Your task to perform on an android device: View the shopping cart on ebay.com. Image 0: 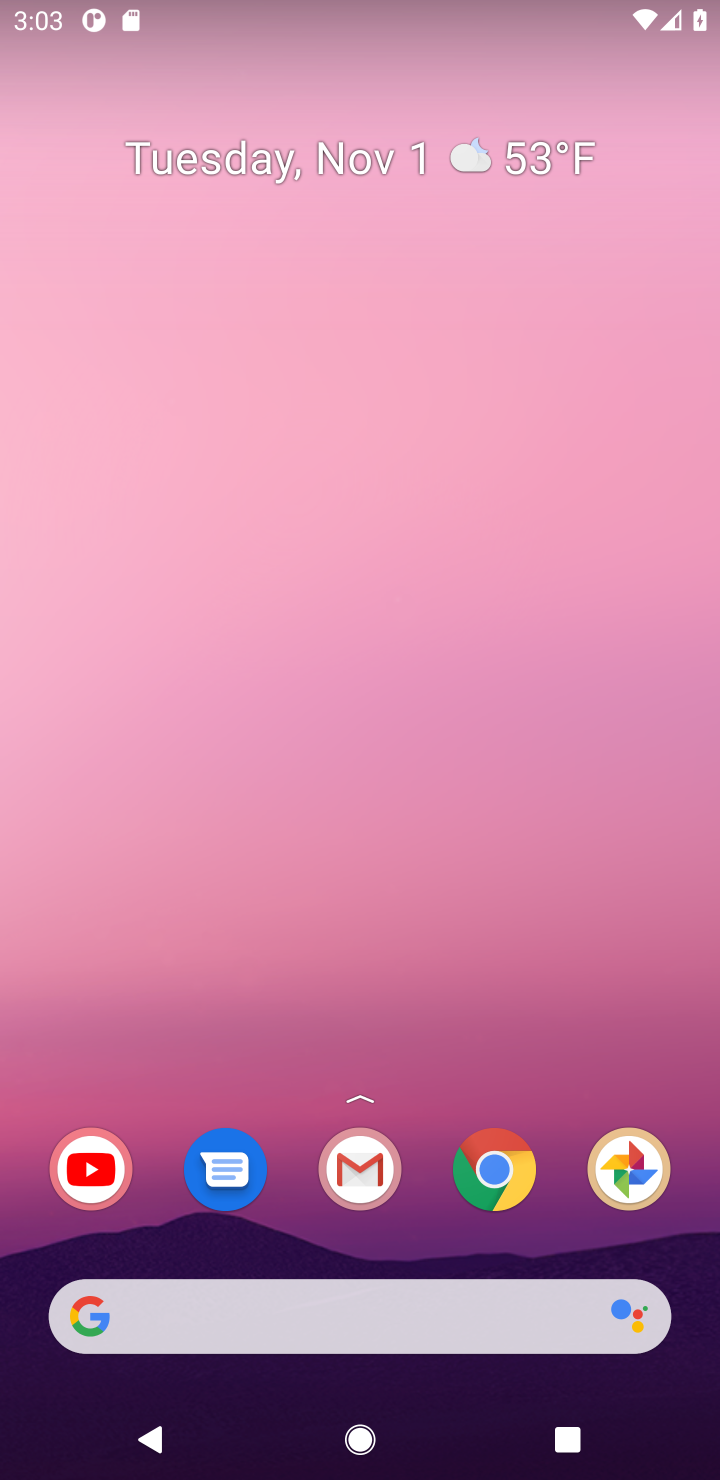
Step 0: drag from (410, 1100) to (410, 123)
Your task to perform on an android device: View the shopping cart on ebay.com. Image 1: 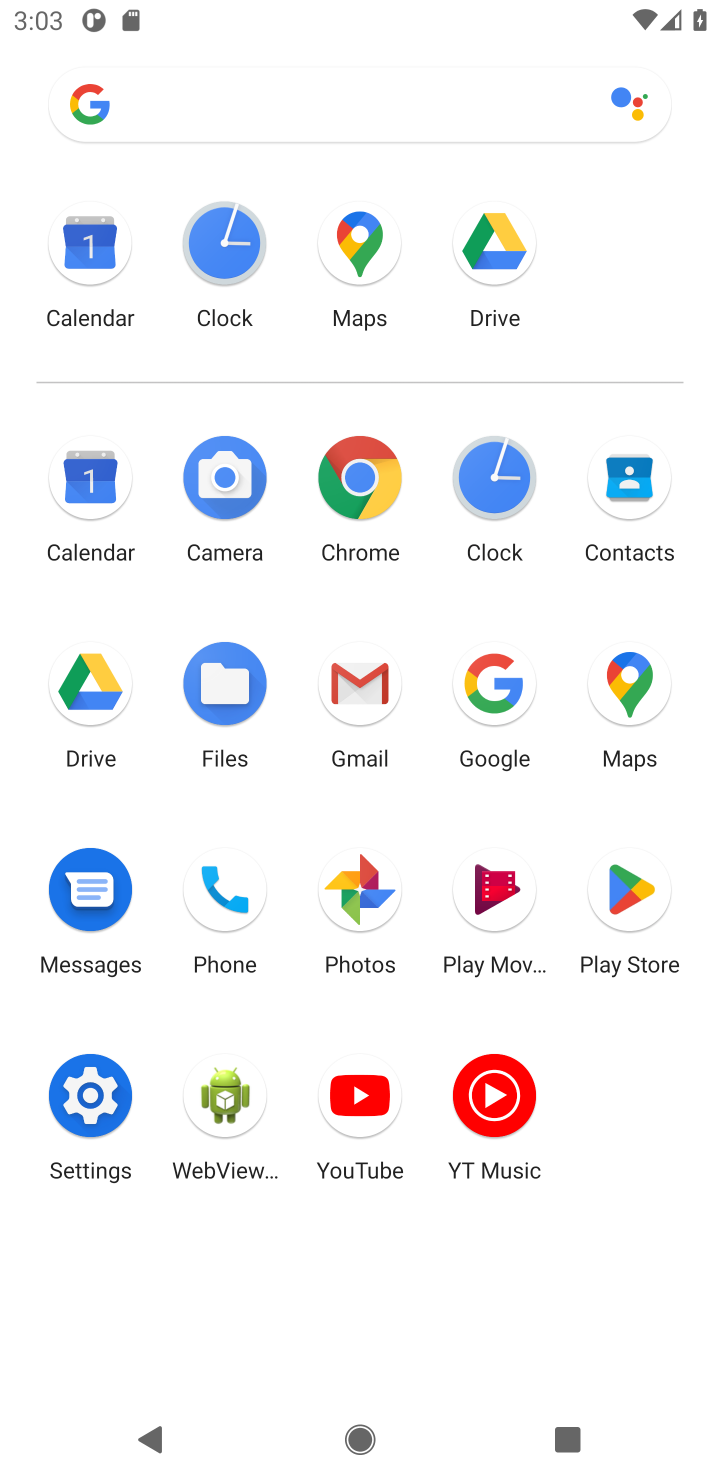
Step 1: click (352, 473)
Your task to perform on an android device: View the shopping cart on ebay.com. Image 2: 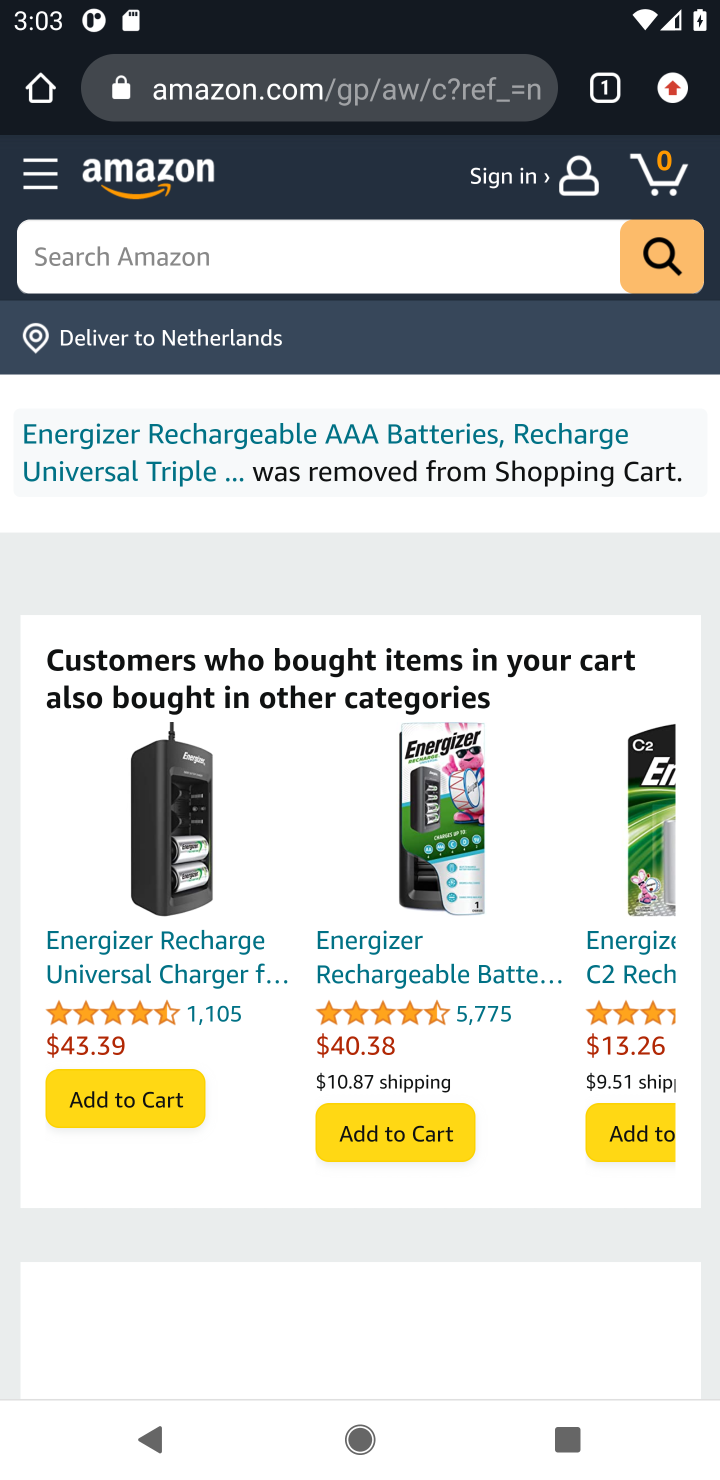
Step 2: click (290, 85)
Your task to perform on an android device: View the shopping cart on ebay.com. Image 3: 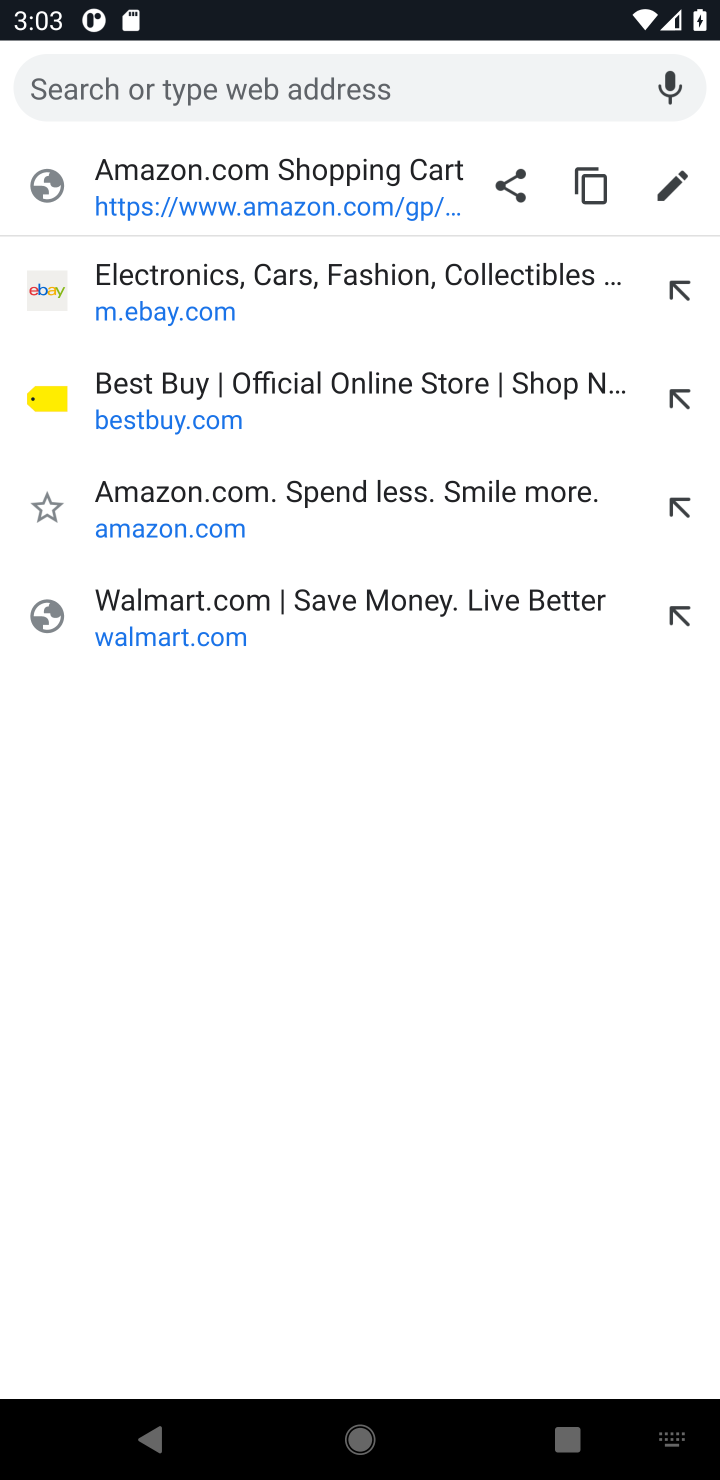
Step 3: type "ebay"
Your task to perform on an android device: View the shopping cart on ebay.com. Image 4: 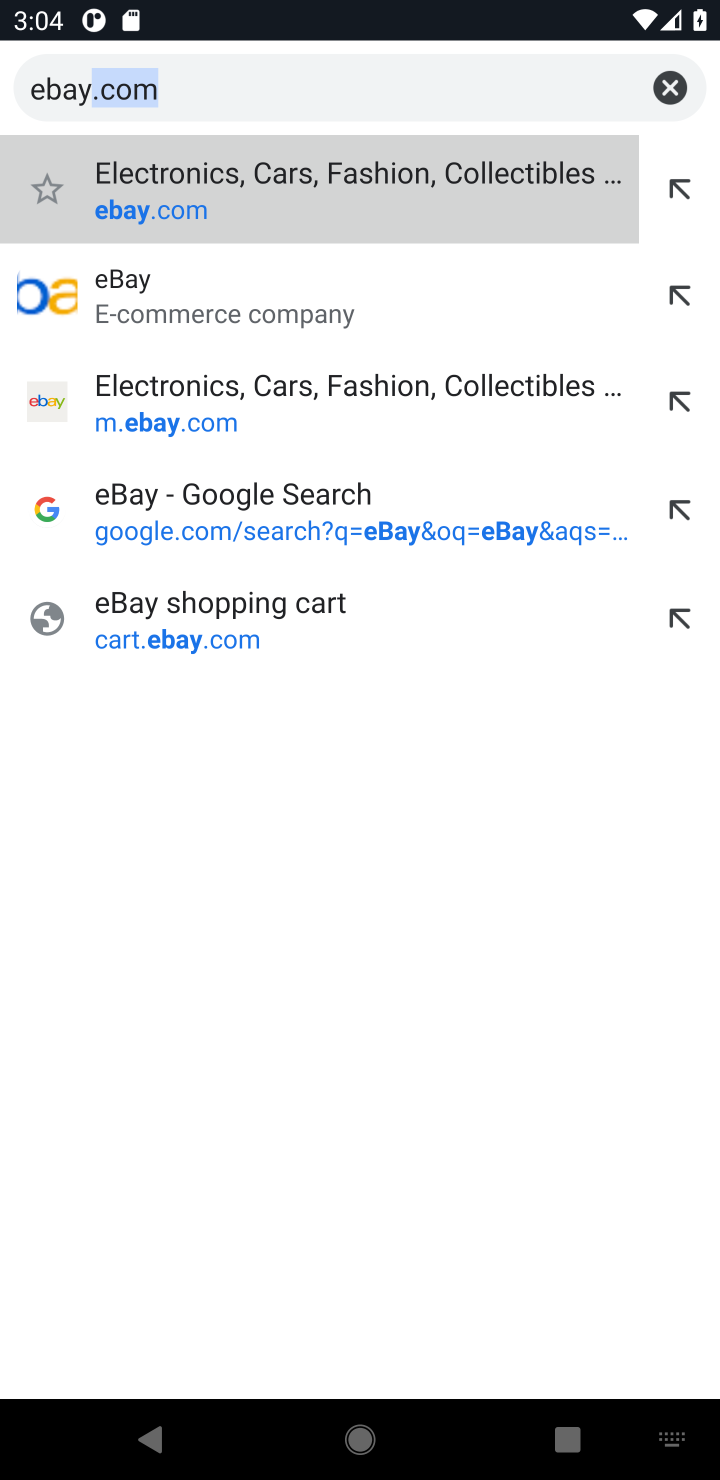
Step 4: click (253, 214)
Your task to perform on an android device: View the shopping cart on ebay.com. Image 5: 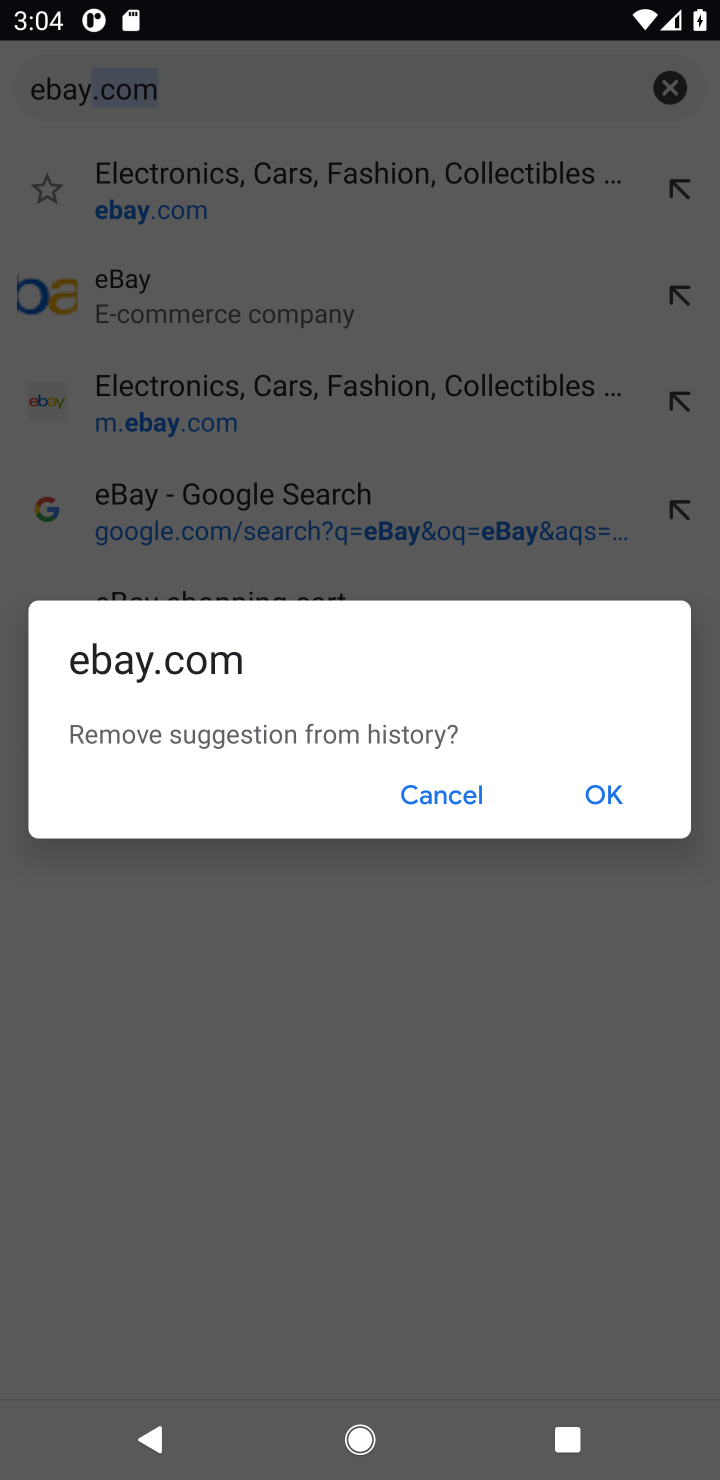
Step 5: click (149, 221)
Your task to perform on an android device: View the shopping cart on ebay.com. Image 6: 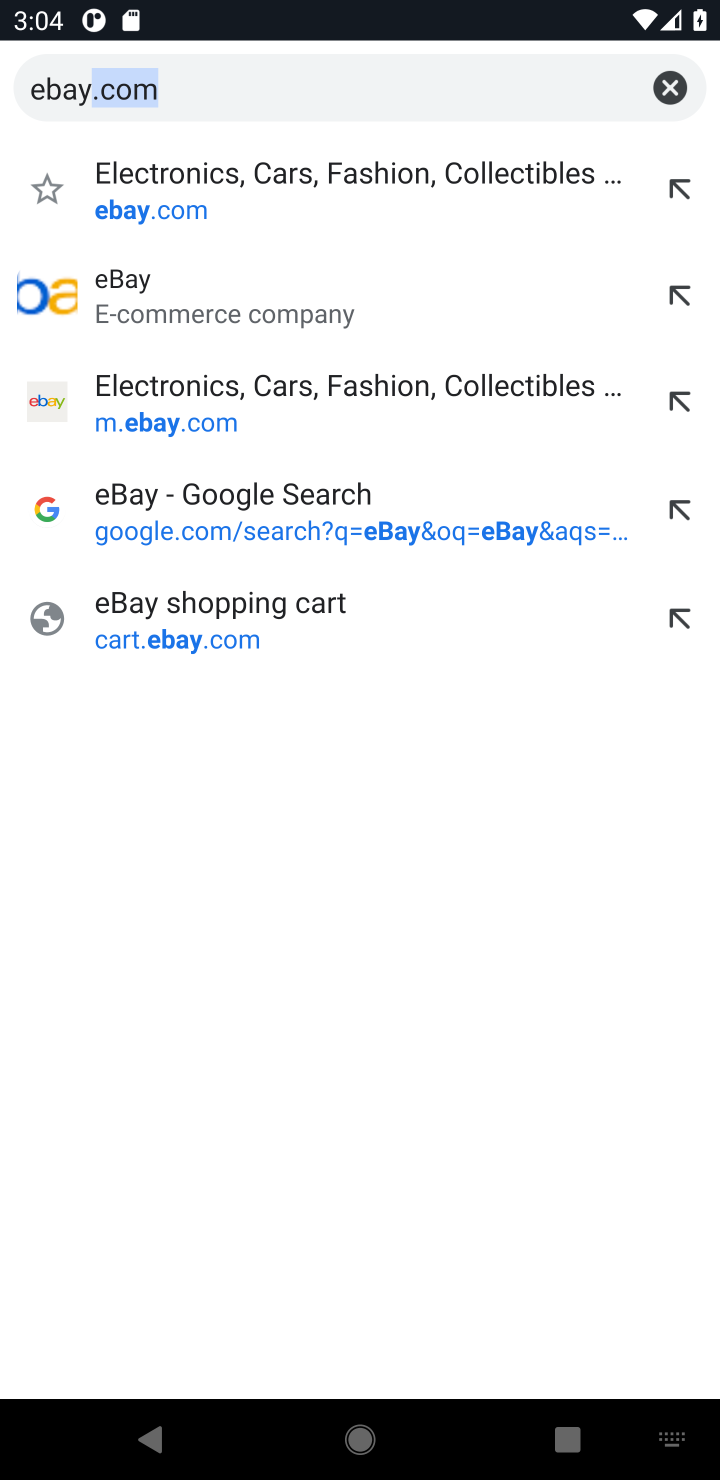
Step 6: click (127, 195)
Your task to perform on an android device: View the shopping cart on ebay.com. Image 7: 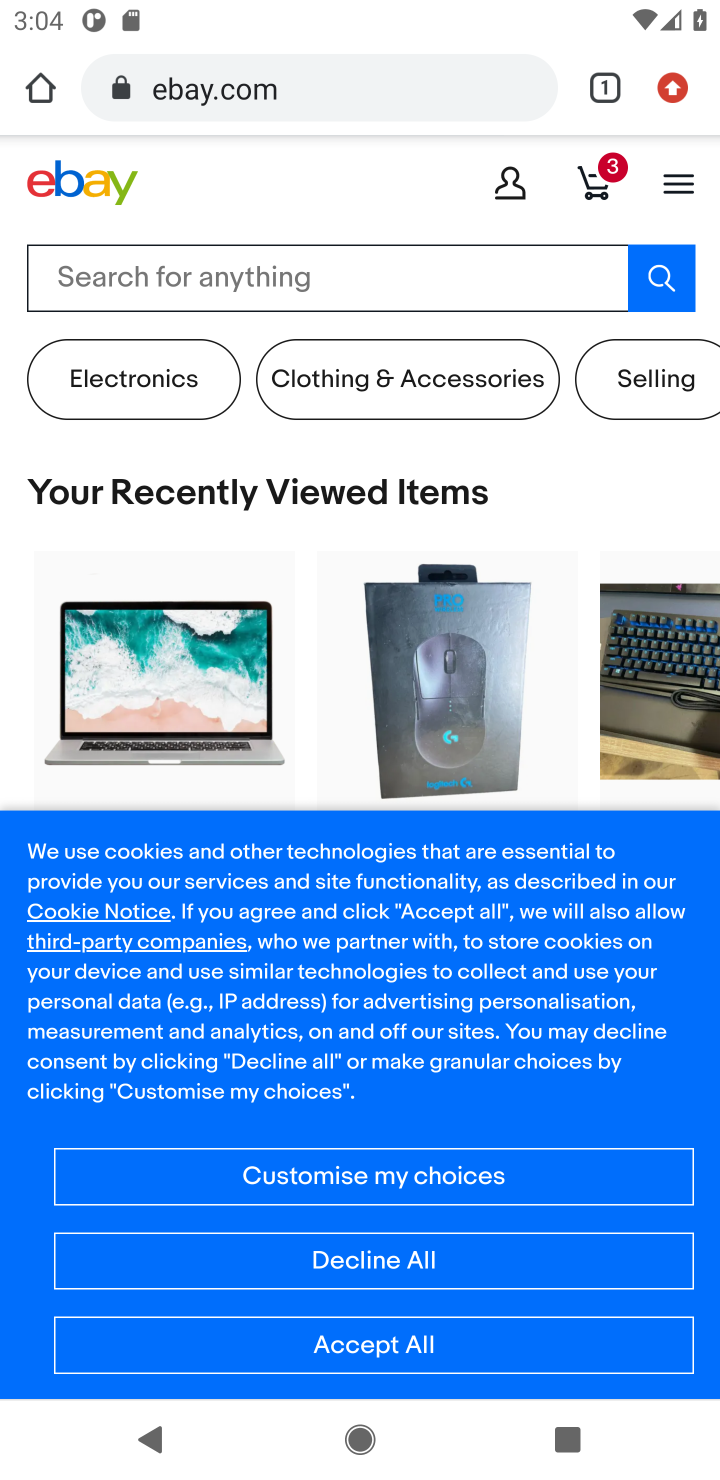
Step 7: click (380, 1353)
Your task to perform on an android device: View the shopping cart on ebay.com. Image 8: 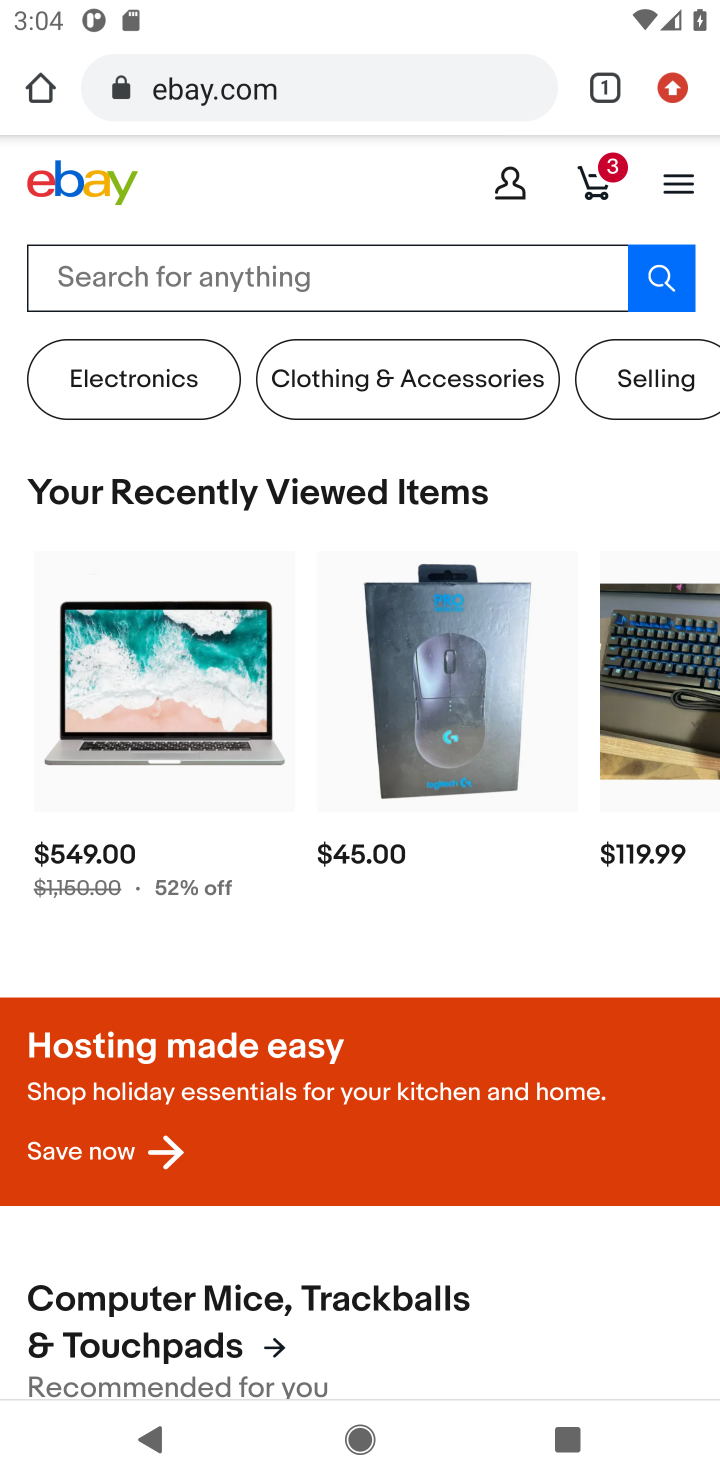
Step 8: click (213, 270)
Your task to perform on an android device: View the shopping cart on ebay.com. Image 9: 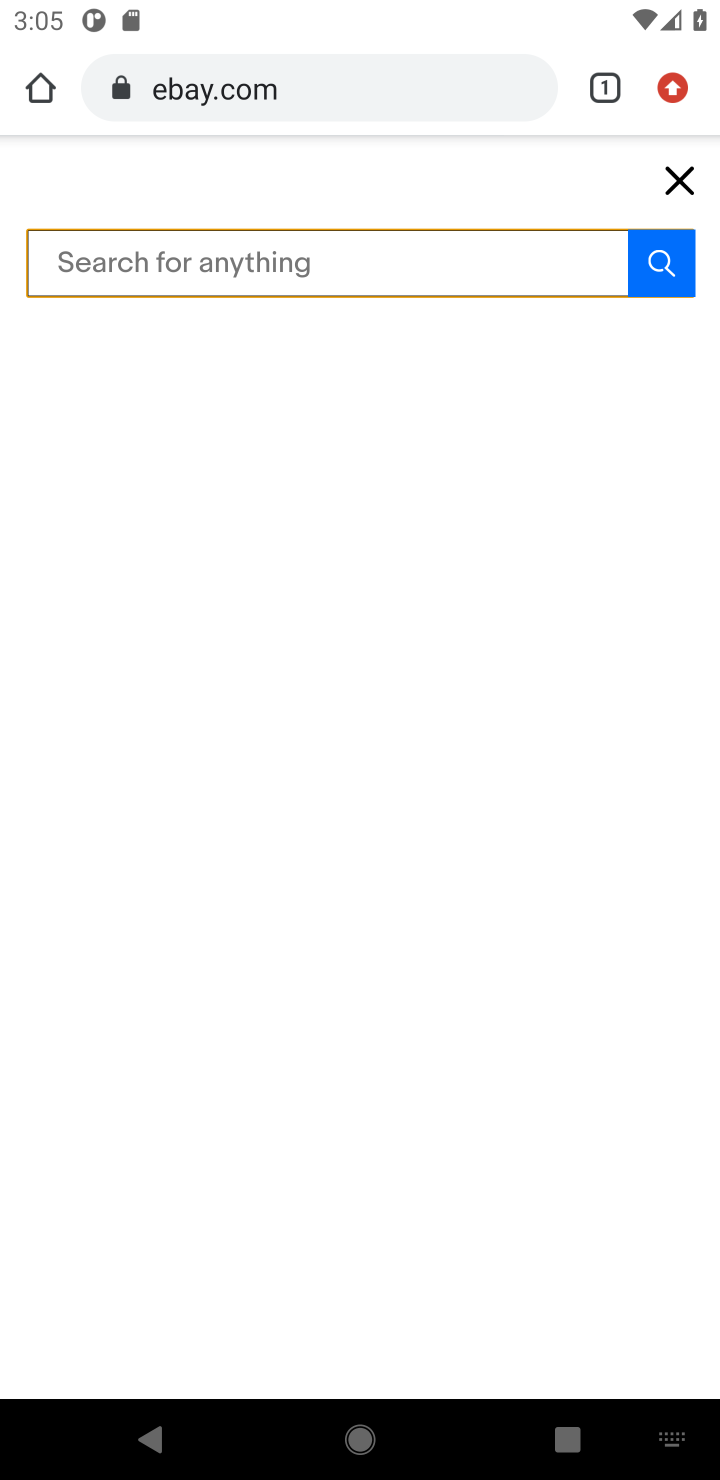
Step 9: click (678, 181)
Your task to perform on an android device: View the shopping cart on ebay.com. Image 10: 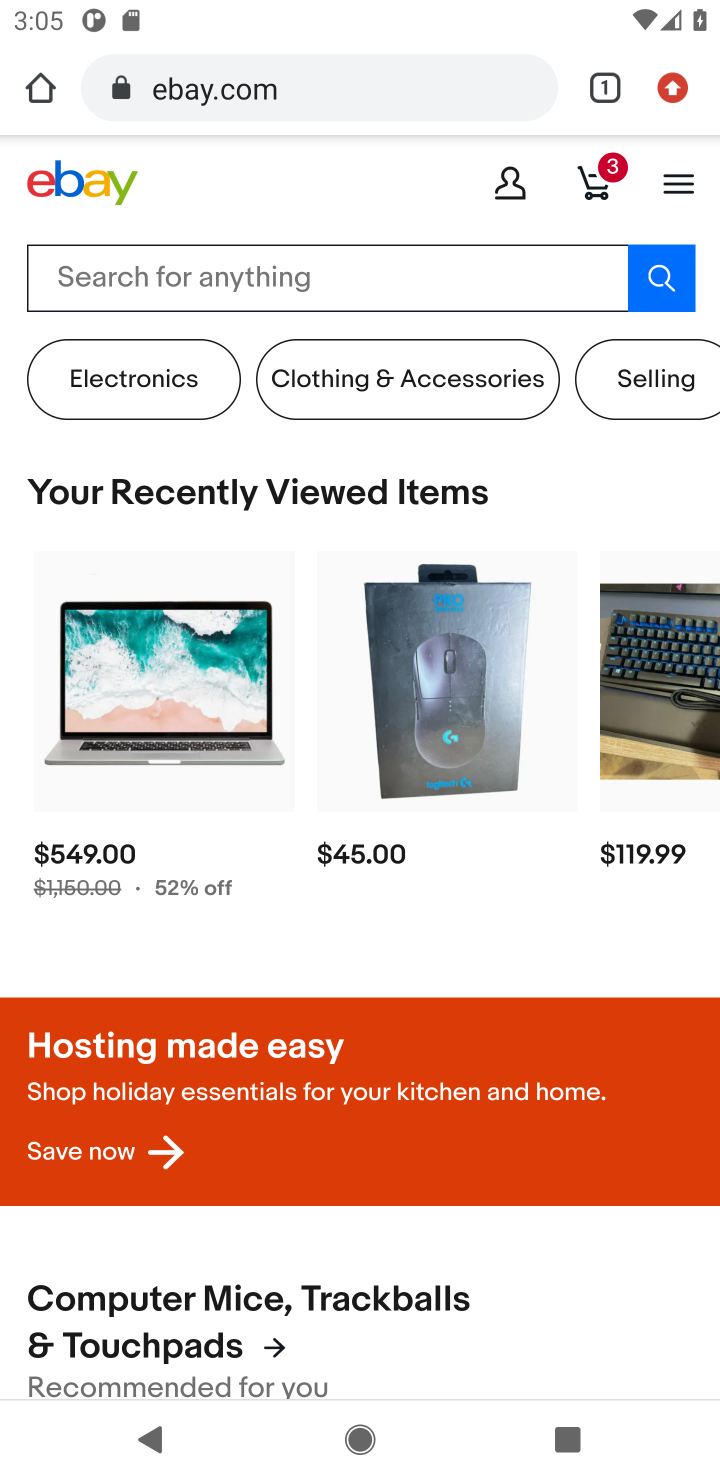
Step 10: click (607, 171)
Your task to perform on an android device: View the shopping cart on ebay.com. Image 11: 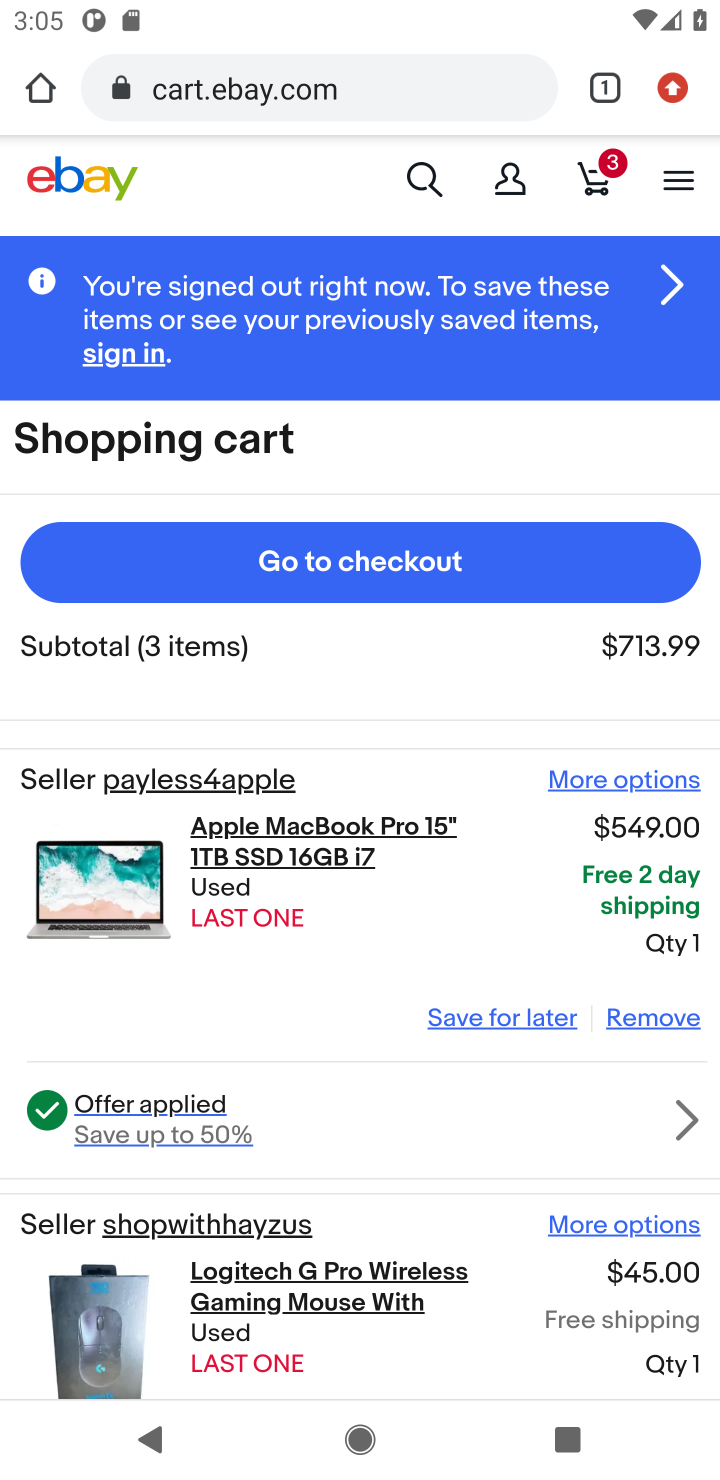
Step 11: task complete